Your task to perform on an android device: Find coffee shops on Maps Image 0: 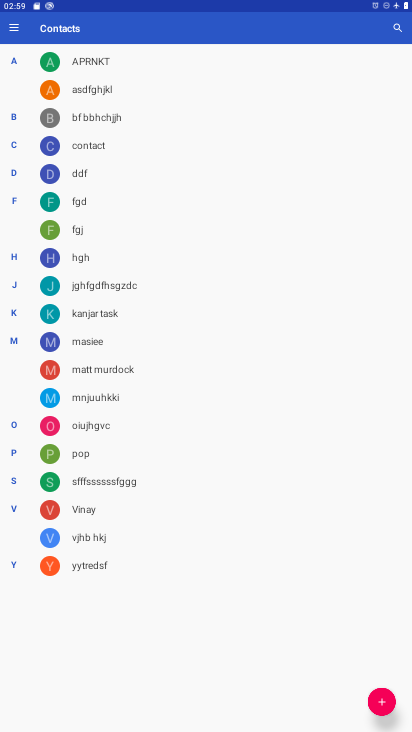
Step 0: press home button
Your task to perform on an android device: Find coffee shops on Maps Image 1: 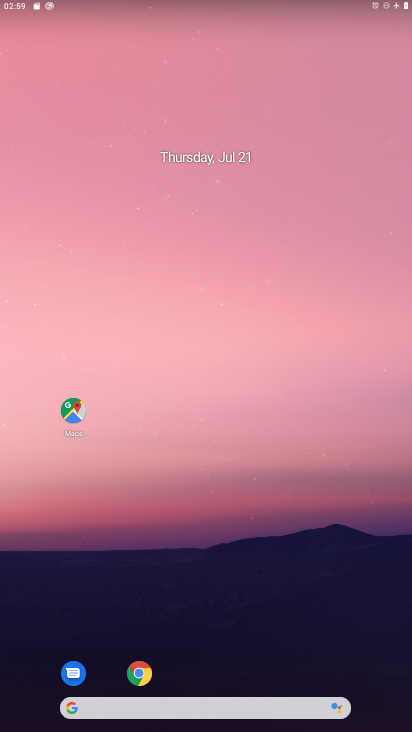
Step 1: drag from (277, 656) to (274, 298)
Your task to perform on an android device: Find coffee shops on Maps Image 2: 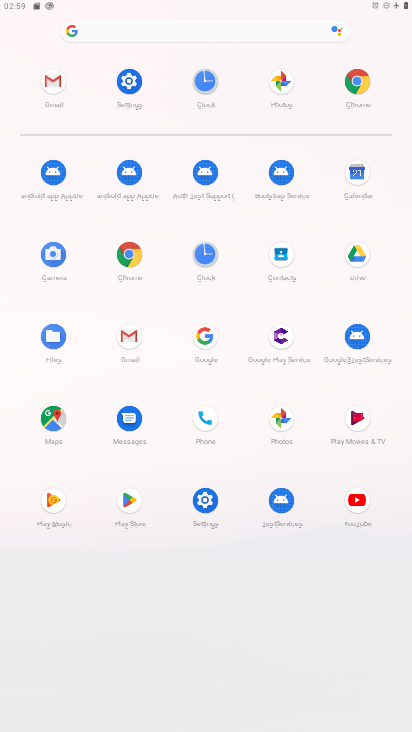
Step 2: click (58, 414)
Your task to perform on an android device: Find coffee shops on Maps Image 3: 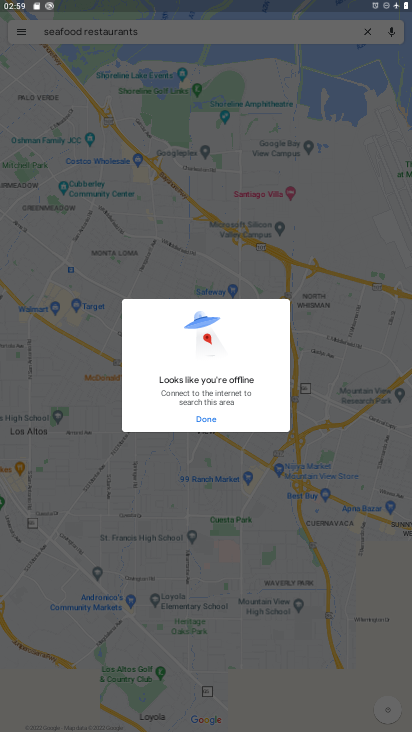
Step 3: click (220, 409)
Your task to perform on an android device: Find coffee shops on Maps Image 4: 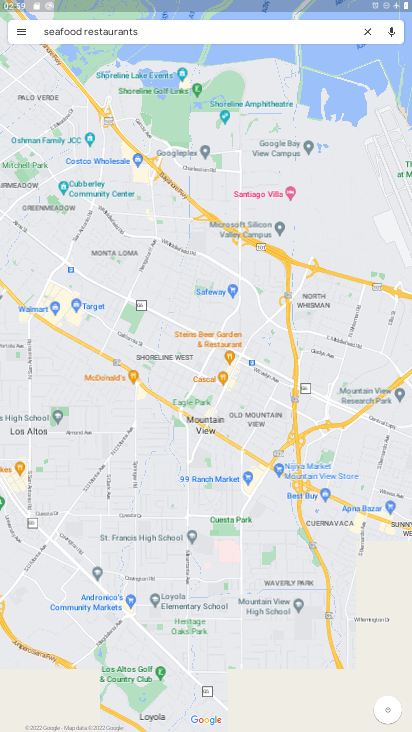
Step 4: click (369, 26)
Your task to perform on an android device: Find coffee shops on Maps Image 5: 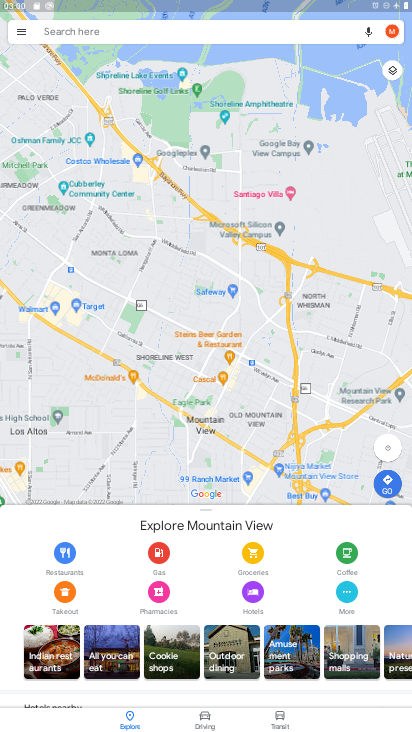
Step 5: click (158, 29)
Your task to perform on an android device: Find coffee shops on Maps Image 6: 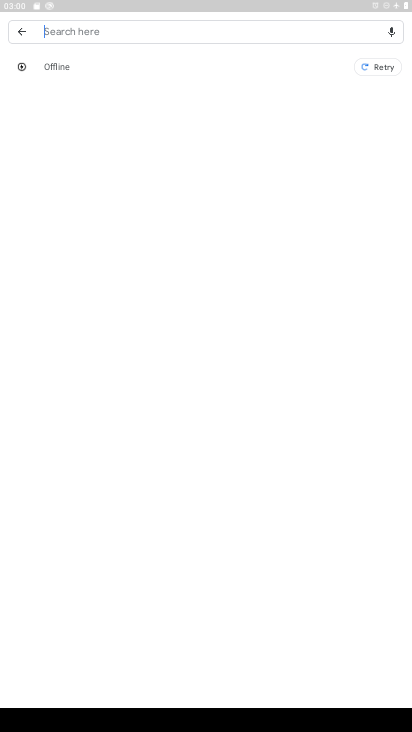
Step 6: click (123, 26)
Your task to perform on an android device: Find coffee shops on Maps Image 7: 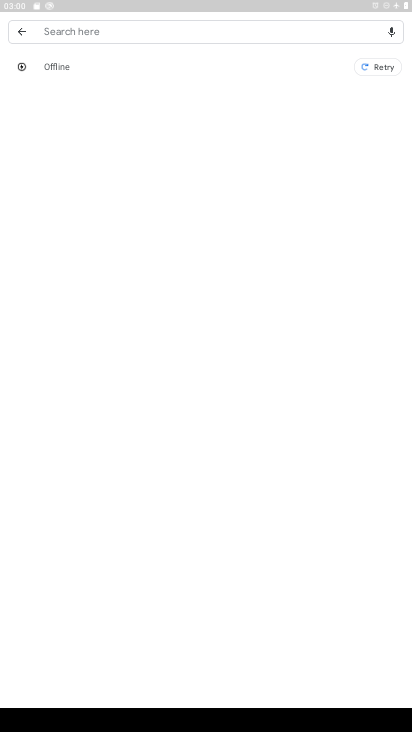
Step 7: type "coffee "
Your task to perform on an android device: Find coffee shops on Maps Image 8: 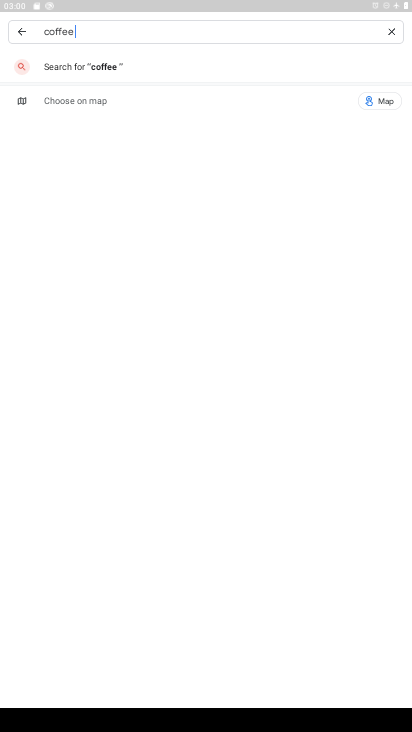
Step 8: click (106, 63)
Your task to perform on an android device: Find coffee shops on Maps Image 9: 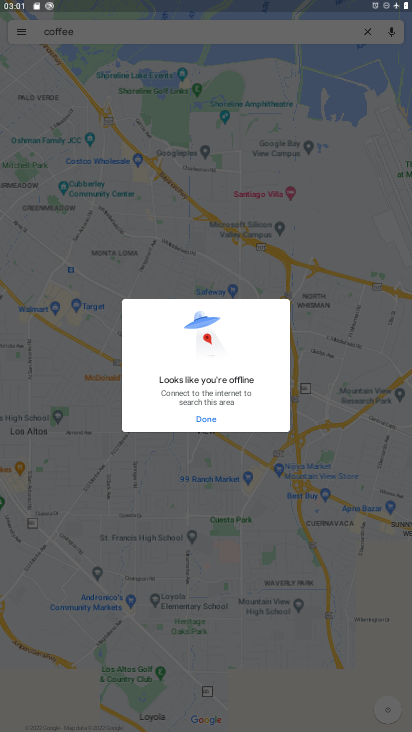
Step 9: task complete